Your task to perform on an android device: open app "Booking.com: Hotels and more" (install if not already installed) Image 0: 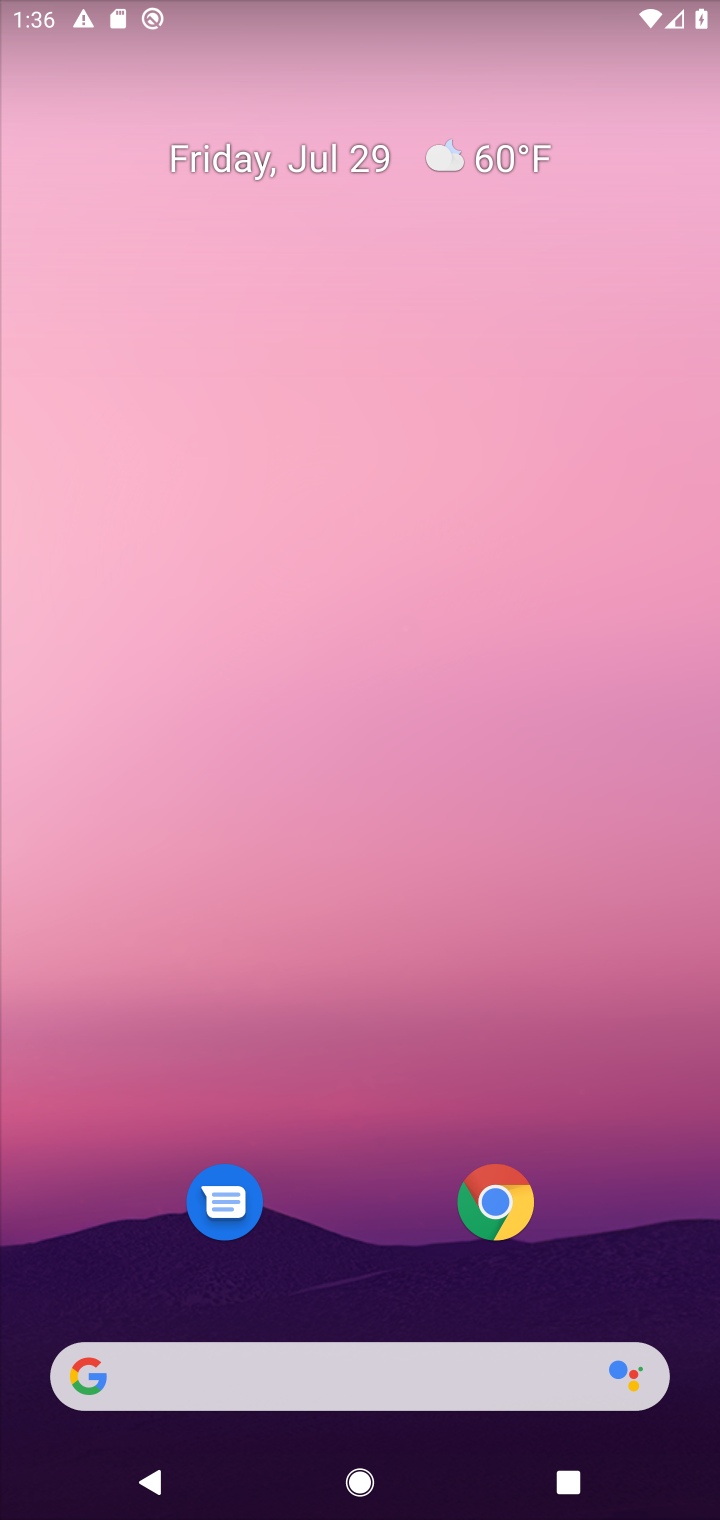
Step 0: drag from (384, 1299) to (257, 282)
Your task to perform on an android device: open app "Booking.com: Hotels and more" (install if not already installed) Image 1: 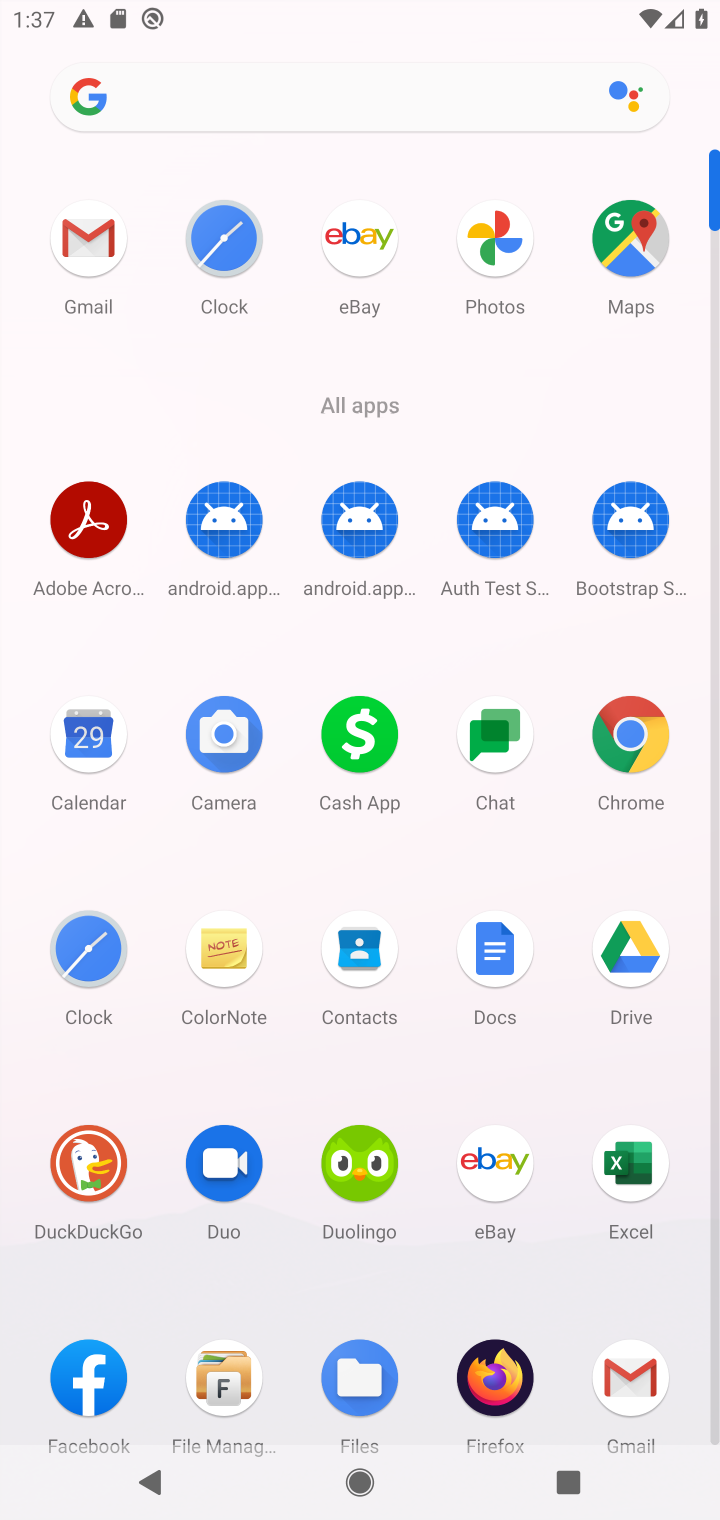
Step 1: click (405, 91)
Your task to perform on an android device: open app "Booking.com: Hotels and more" (install if not already installed) Image 2: 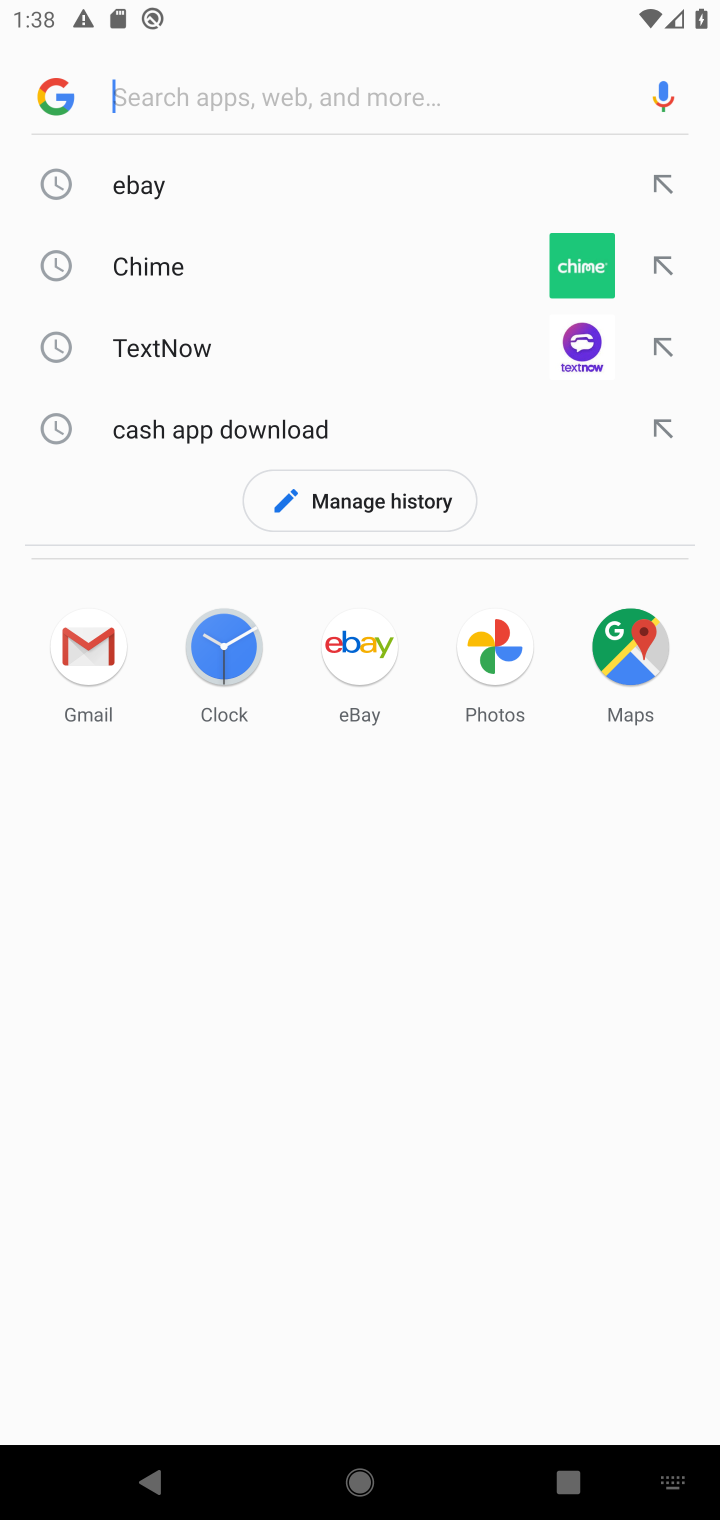
Step 2: type "booking"
Your task to perform on an android device: open app "Booking.com: Hotels and more" (install if not already installed) Image 3: 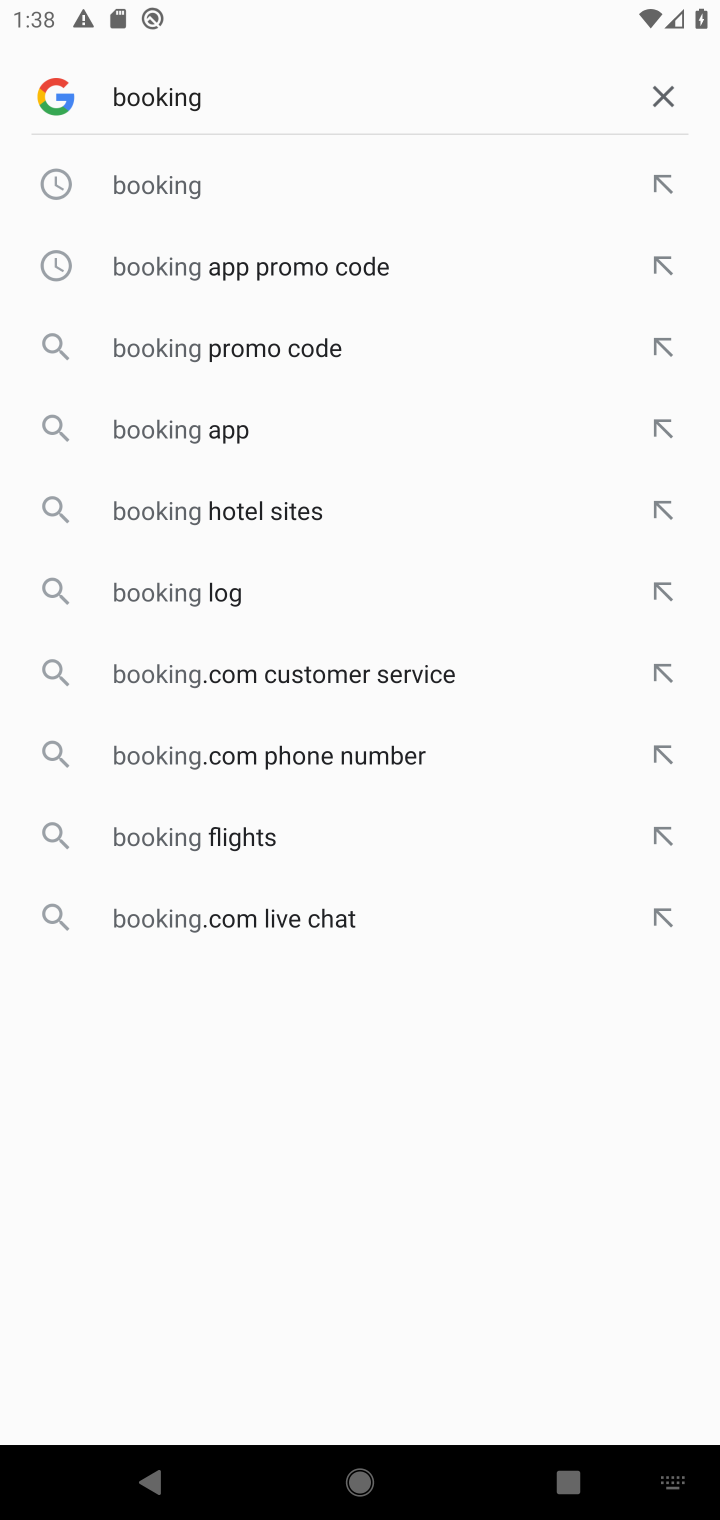
Step 3: click (236, 178)
Your task to perform on an android device: open app "Booking.com: Hotels and more" (install if not already installed) Image 4: 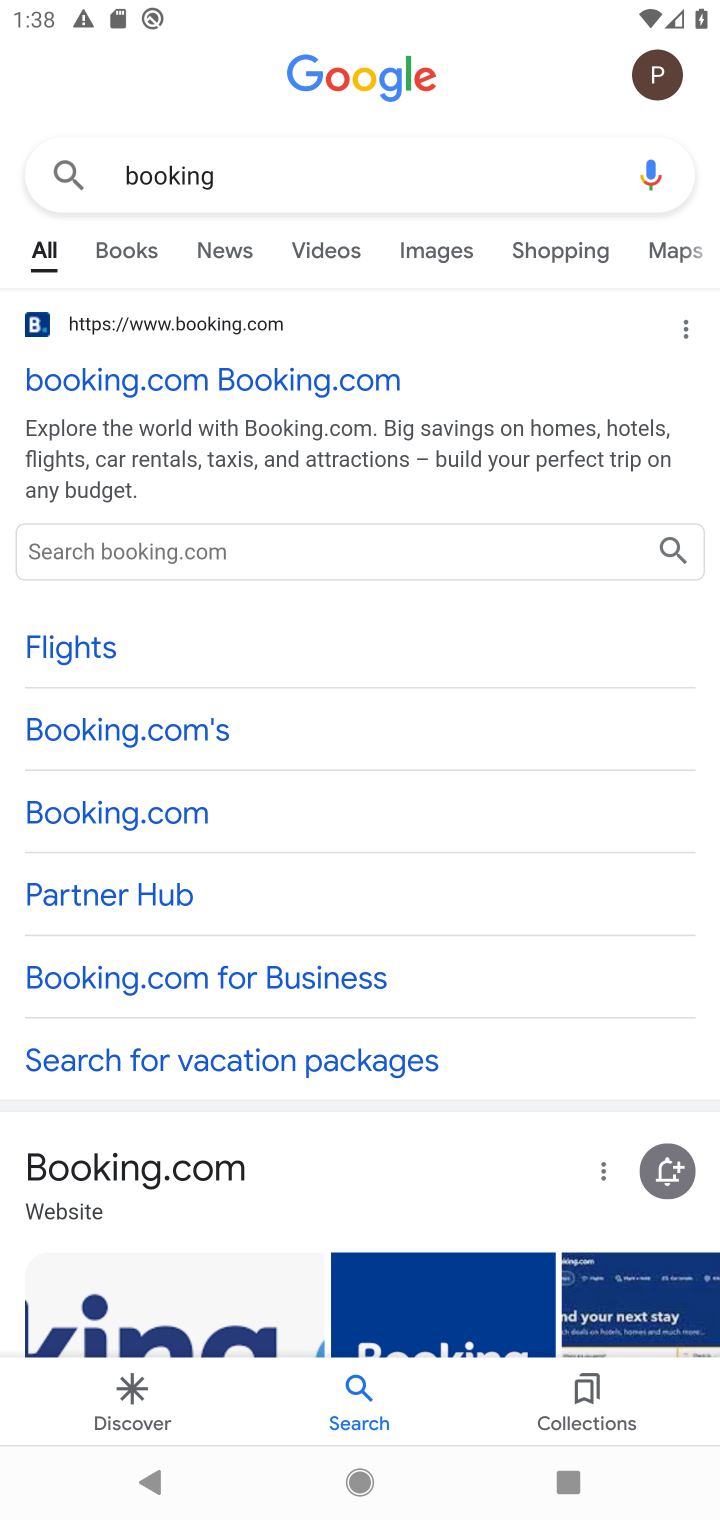
Step 4: task complete